Your task to perform on an android device: find photos in the google photos app Image 0: 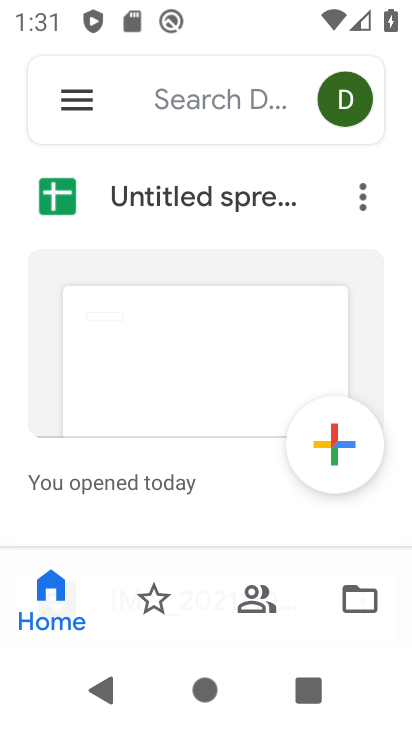
Step 0: press home button
Your task to perform on an android device: find photos in the google photos app Image 1: 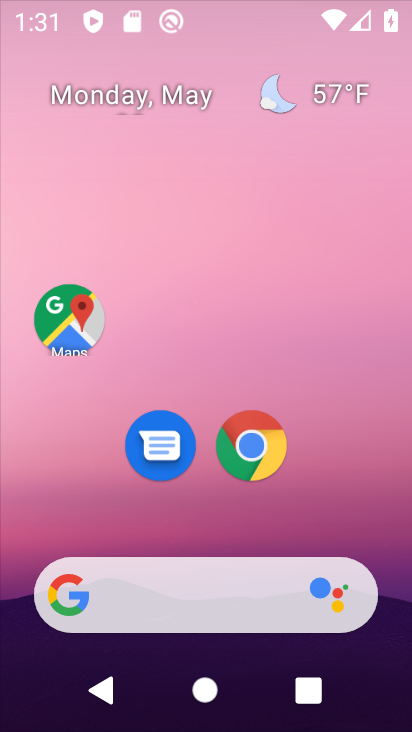
Step 1: drag from (187, 552) to (221, 77)
Your task to perform on an android device: find photos in the google photos app Image 2: 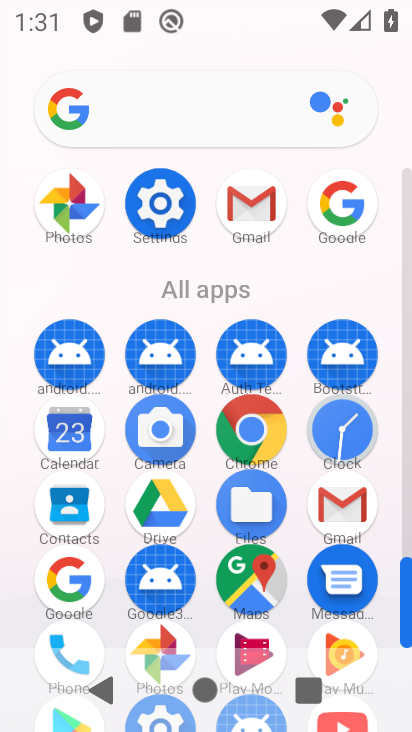
Step 2: click (69, 202)
Your task to perform on an android device: find photos in the google photos app Image 3: 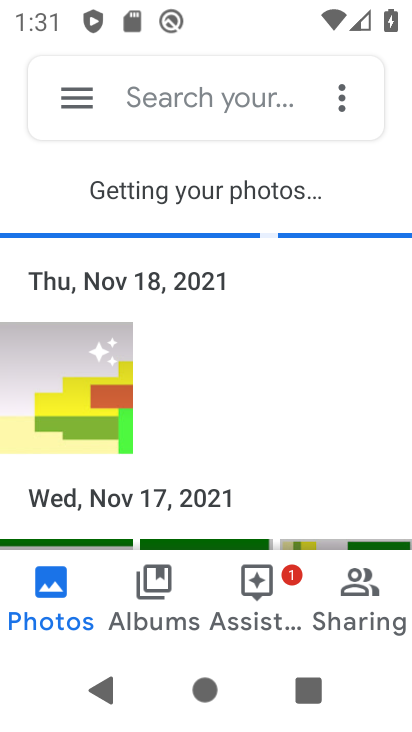
Step 3: task complete